Your task to perform on an android device: open app "Facebook Lite" (install if not already installed) and go to login screen Image 0: 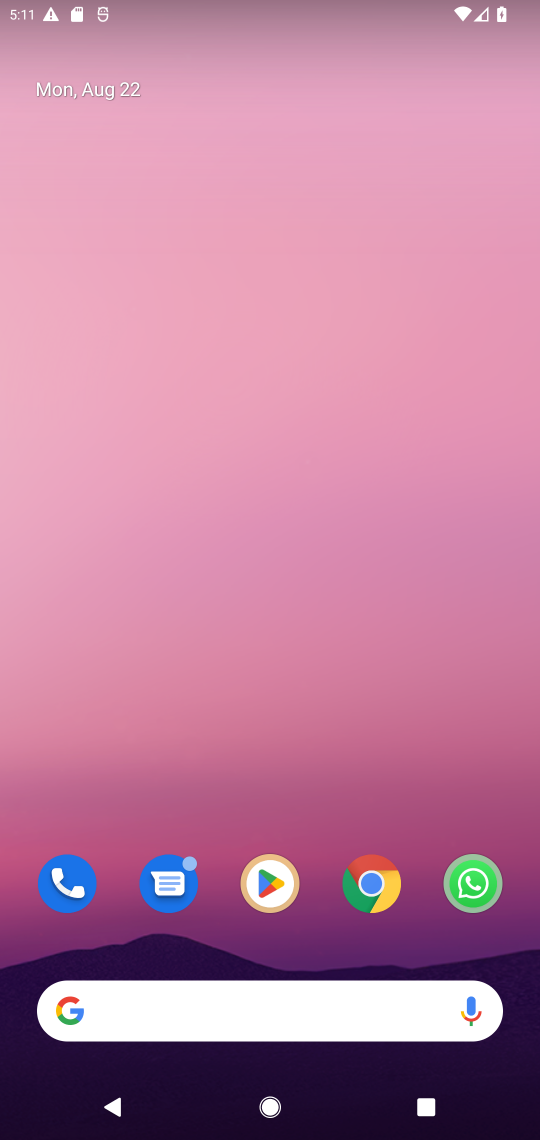
Step 0: drag from (187, 992) to (135, 220)
Your task to perform on an android device: open app "Facebook Lite" (install if not already installed) and go to login screen Image 1: 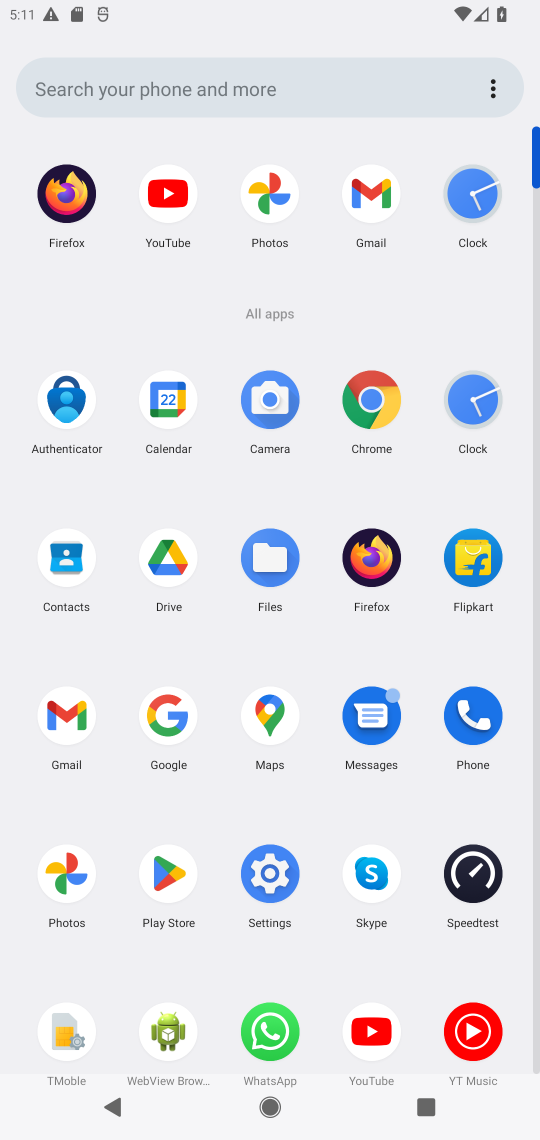
Step 1: click (163, 881)
Your task to perform on an android device: open app "Facebook Lite" (install if not already installed) and go to login screen Image 2: 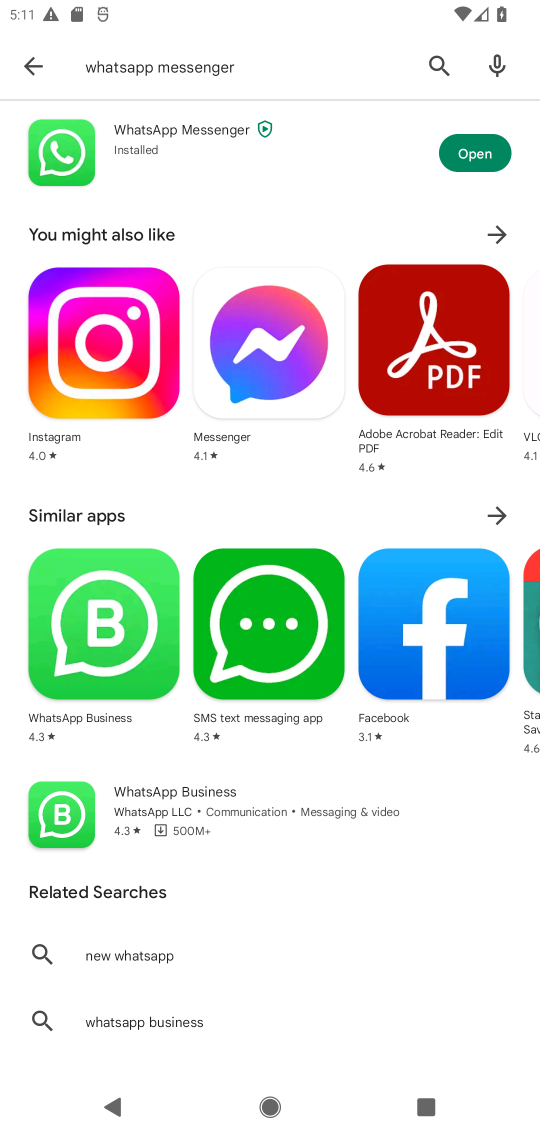
Step 2: click (438, 58)
Your task to perform on an android device: open app "Facebook Lite" (install if not already installed) and go to login screen Image 3: 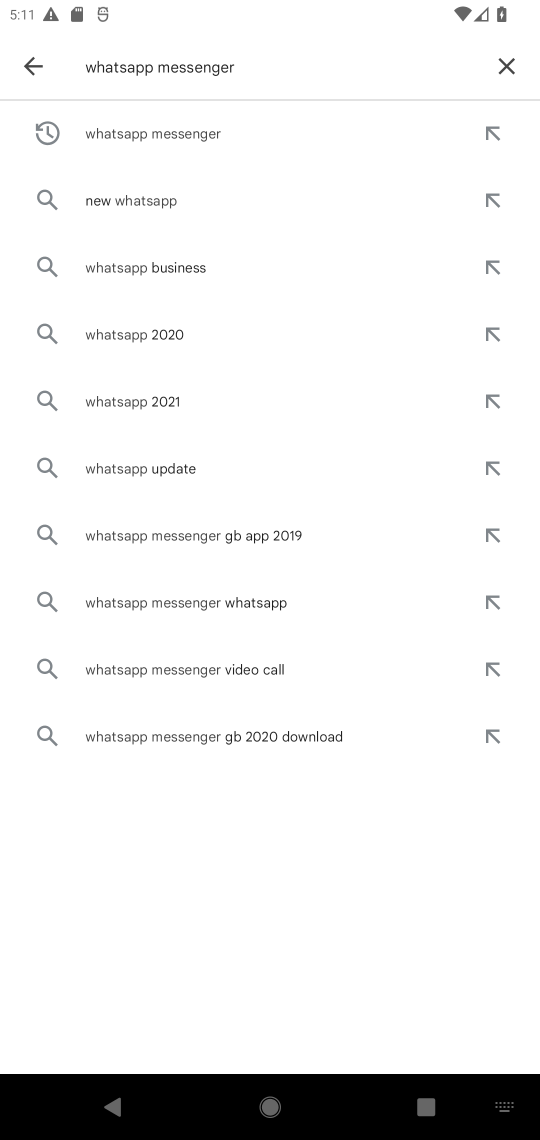
Step 3: click (510, 63)
Your task to perform on an android device: open app "Facebook Lite" (install if not already installed) and go to login screen Image 4: 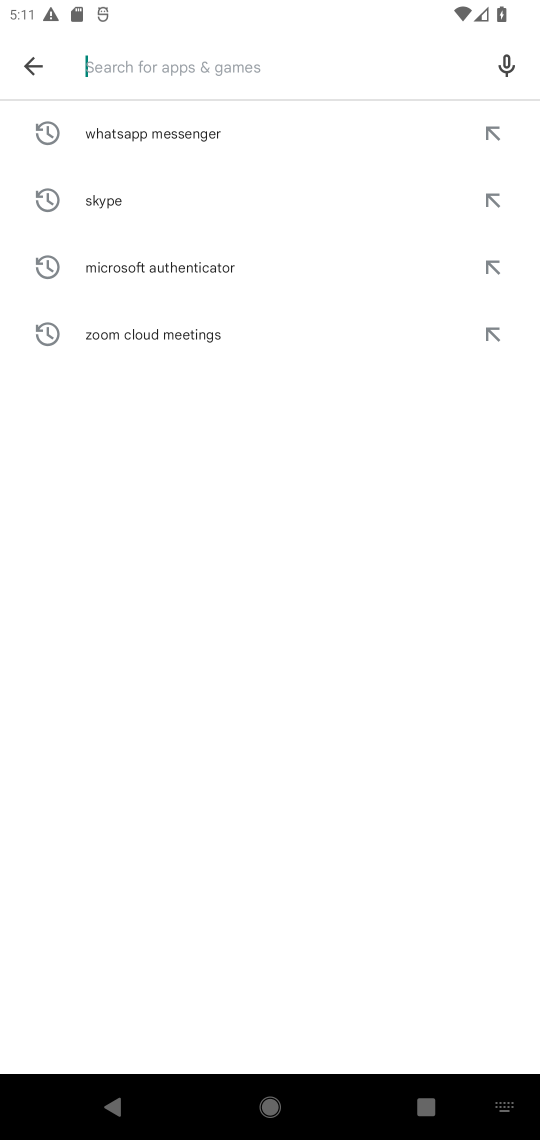
Step 4: type "Facebook Lite"
Your task to perform on an android device: open app "Facebook Lite" (install if not already installed) and go to login screen Image 5: 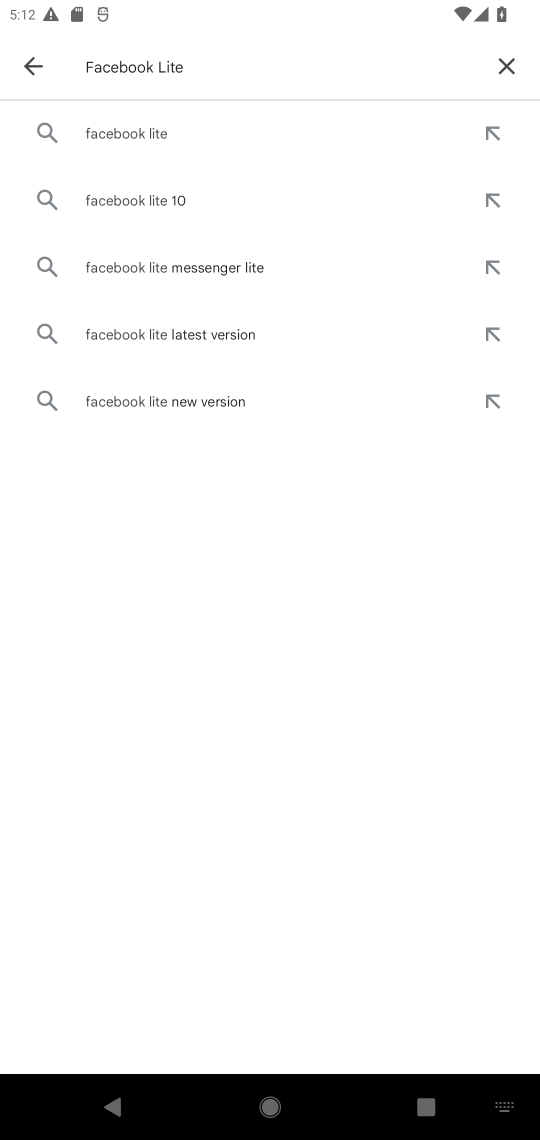
Step 5: click (94, 126)
Your task to perform on an android device: open app "Facebook Lite" (install if not already installed) and go to login screen Image 6: 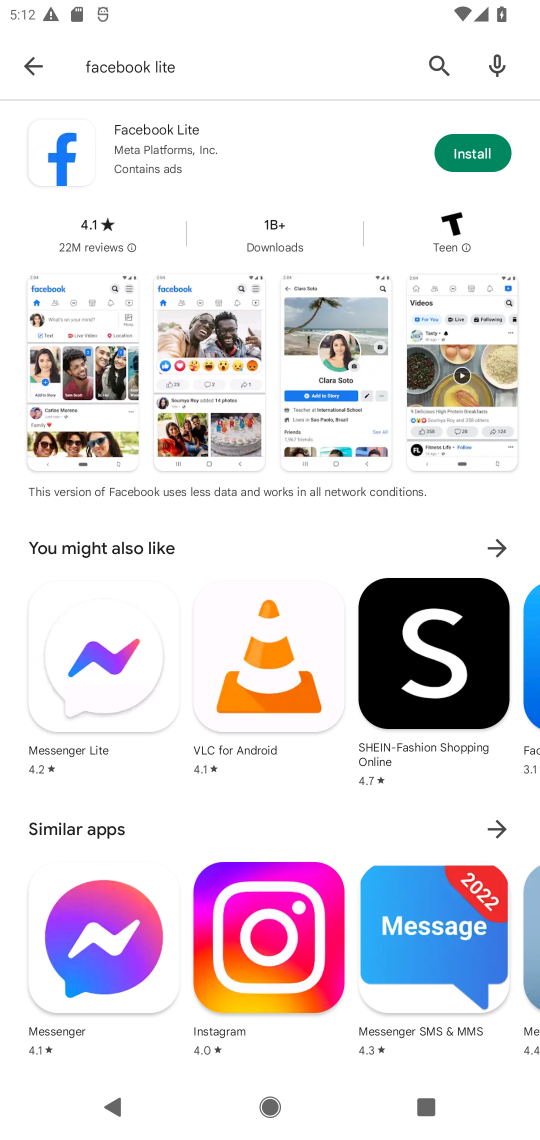
Step 6: click (486, 151)
Your task to perform on an android device: open app "Facebook Lite" (install if not already installed) and go to login screen Image 7: 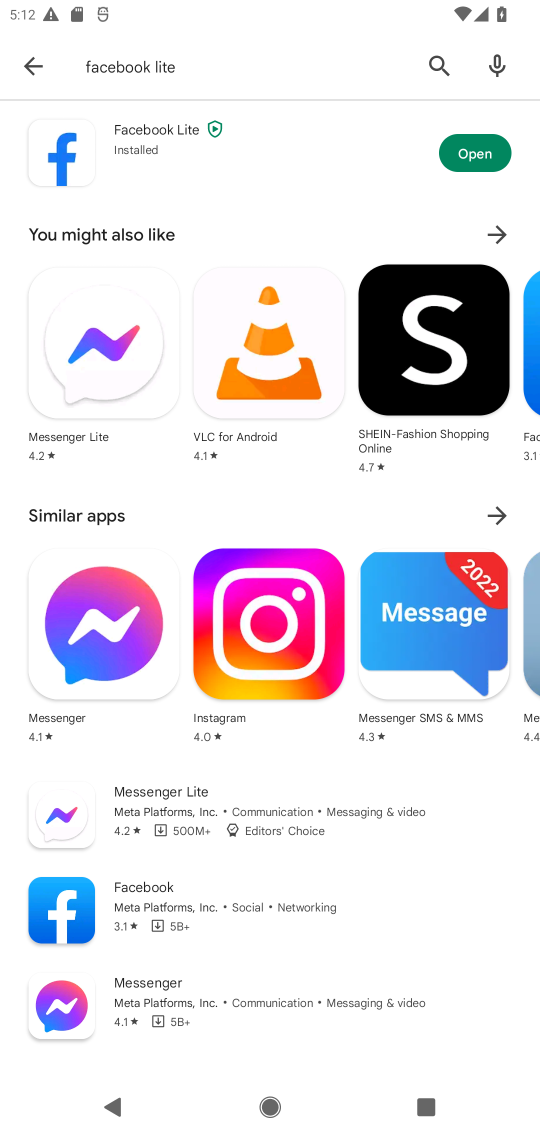
Step 7: click (460, 156)
Your task to perform on an android device: open app "Facebook Lite" (install if not already installed) and go to login screen Image 8: 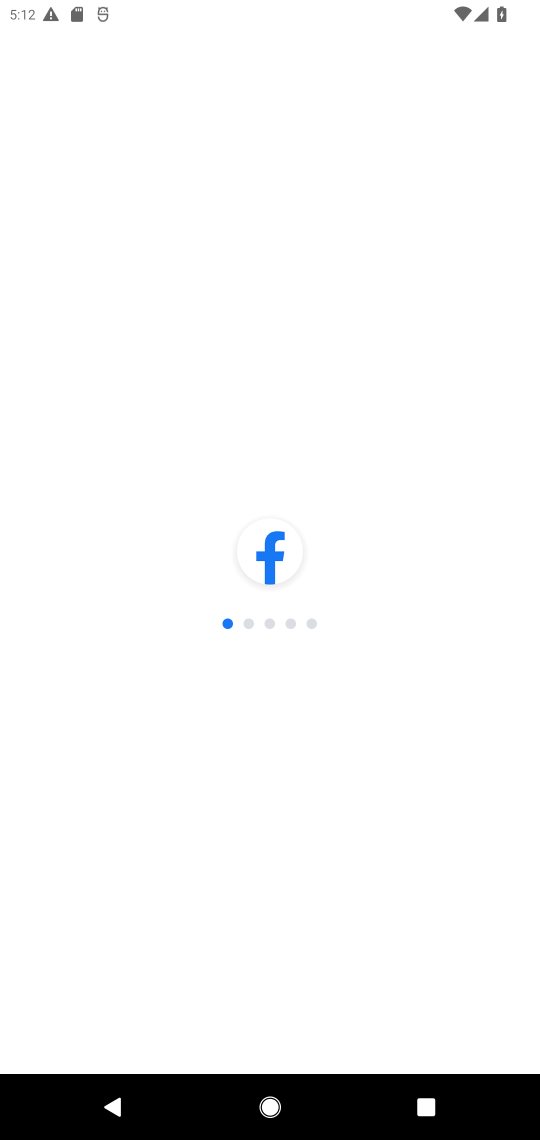
Step 8: task complete